Your task to perform on an android device: toggle notification dots Image 0: 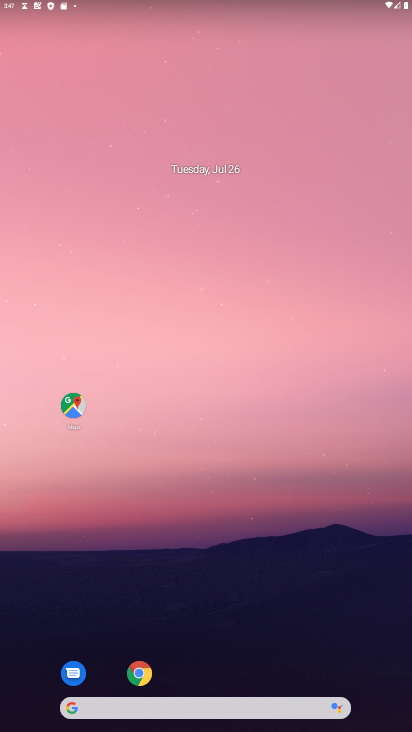
Step 0: drag from (179, 705) to (169, 392)
Your task to perform on an android device: toggle notification dots Image 1: 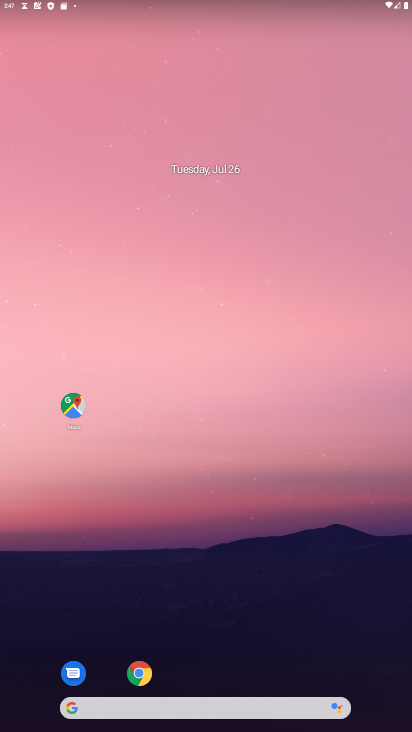
Step 1: drag from (170, 708) to (220, 80)
Your task to perform on an android device: toggle notification dots Image 2: 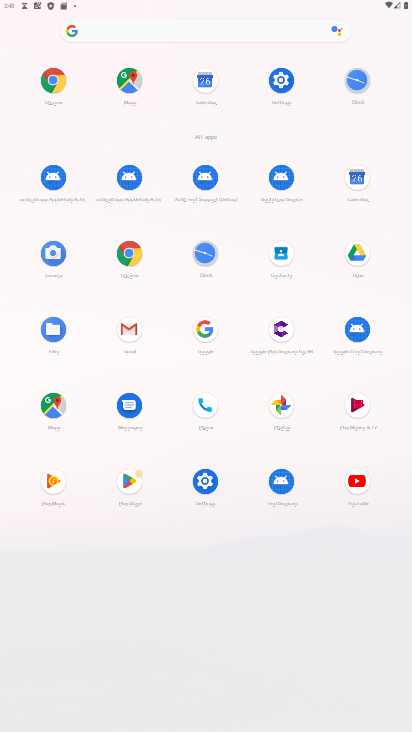
Step 2: click (281, 80)
Your task to perform on an android device: toggle notification dots Image 3: 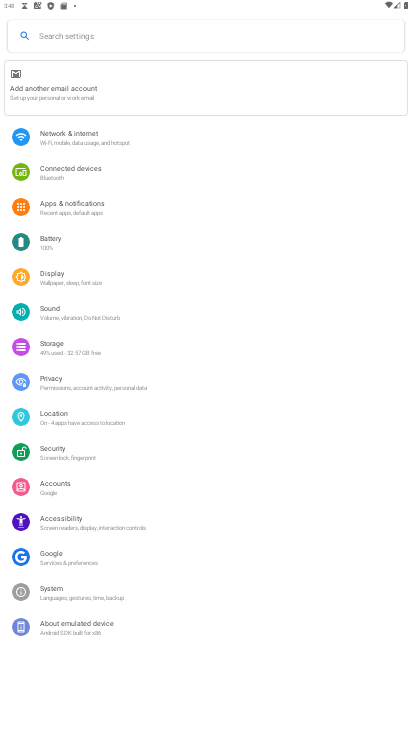
Step 3: click (85, 210)
Your task to perform on an android device: toggle notification dots Image 4: 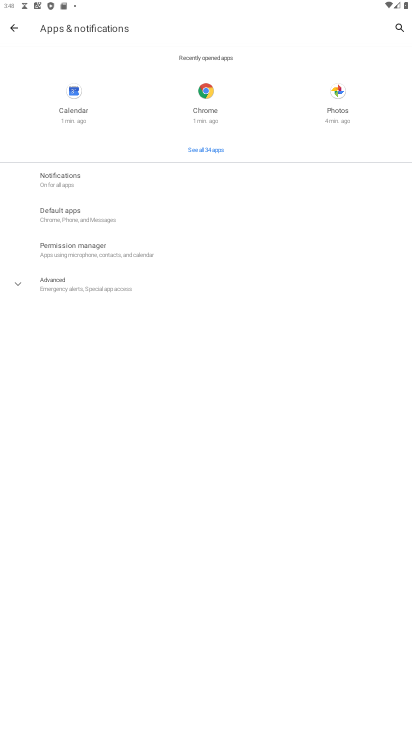
Step 4: click (56, 175)
Your task to perform on an android device: toggle notification dots Image 5: 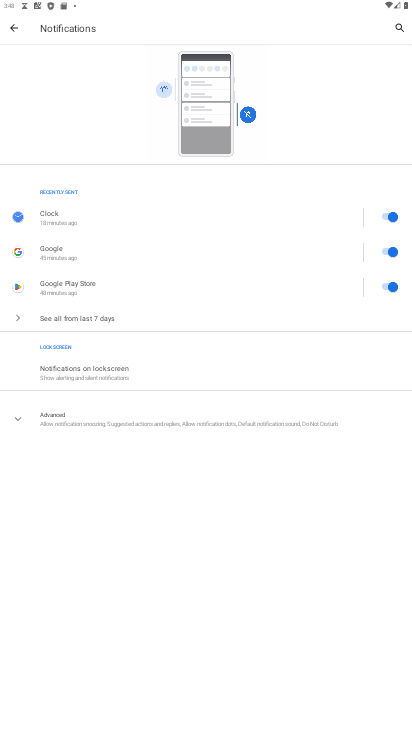
Step 5: click (73, 422)
Your task to perform on an android device: toggle notification dots Image 6: 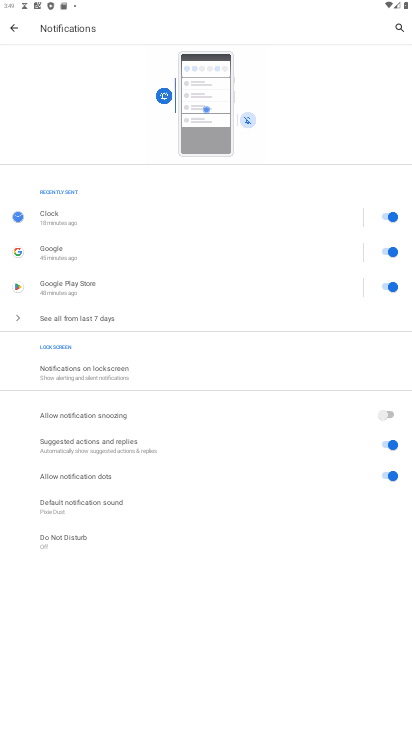
Step 6: click (390, 475)
Your task to perform on an android device: toggle notification dots Image 7: 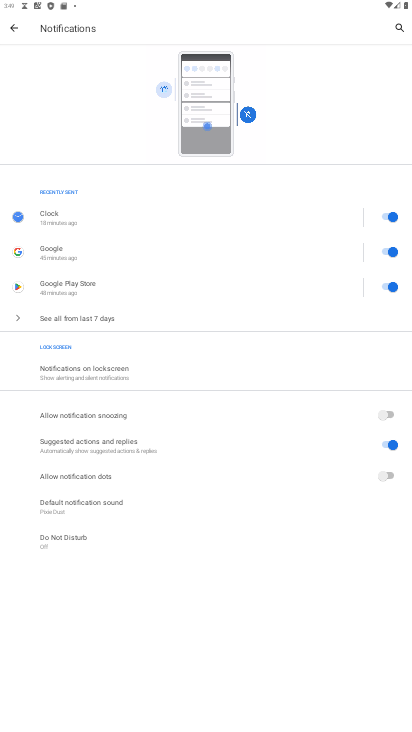
Step 7: task complete